Your task to perform on an android device: Go to Amazon Image 0: 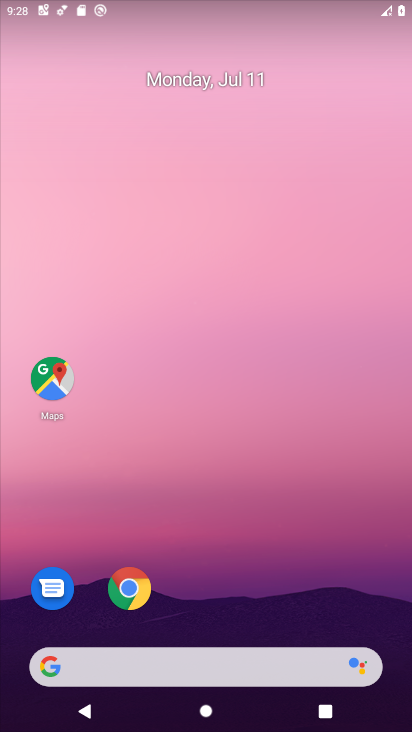
Step 0: drag from (290, 564) to (277, 300)
Your task to perform on an android device: Go to Amazon Image 1: 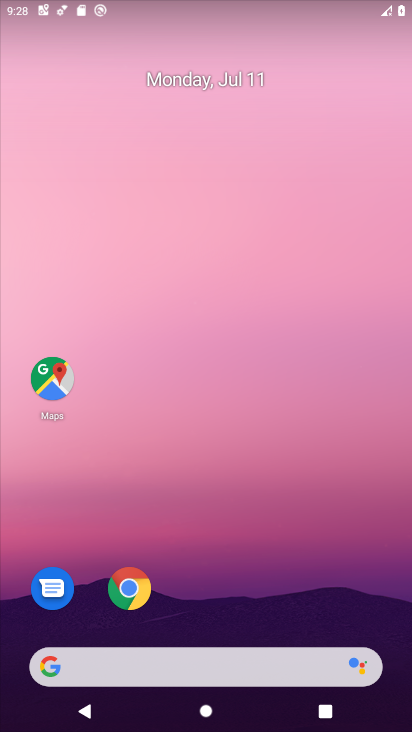
Step 1: drag from (300, 574) to (291, 68)
Your task to perform on an android device: Go to Amazon Image 2: 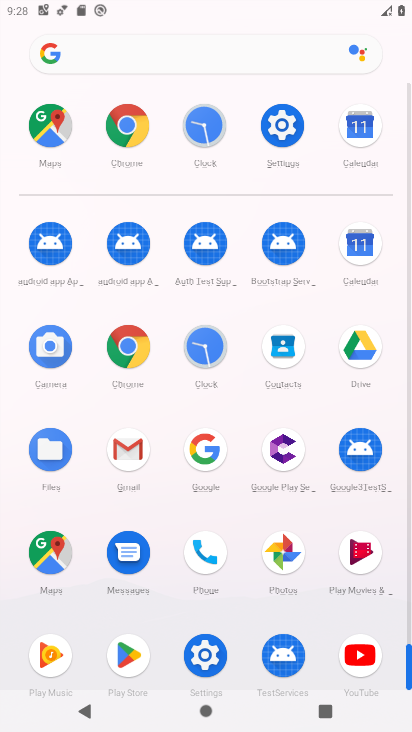
Step 2: click (134, 125)
Your task to perform on an android device: Go to Amazon Image 3: 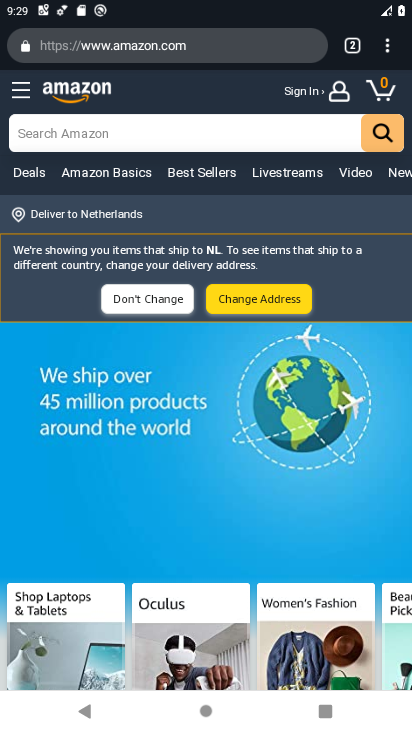
Step 3: task complete